Your task to perform on an android device: turn notification dots off Image 0: 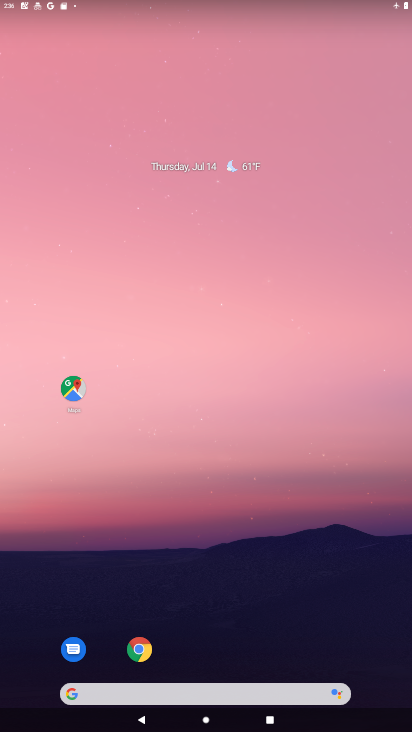
Step 0: drag from (271, 696) to (278, 114)
Your task to perform on an android device: turn notification dots off Image 1: 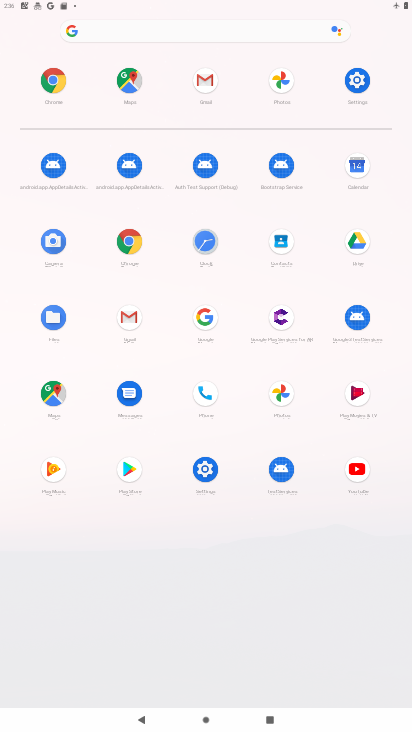
Step 1: click (355, 84)
Your task to perform on an android device: turn notification dots off Image 2: 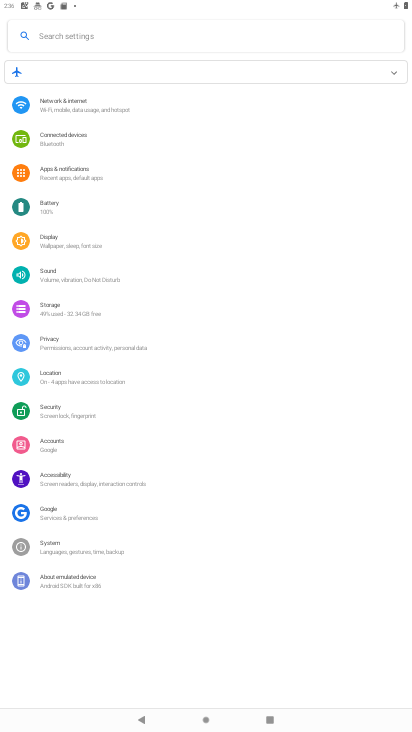
Step 2: click (96, 176)
Your task to perform on an android device: turn notification dots off Image 3: 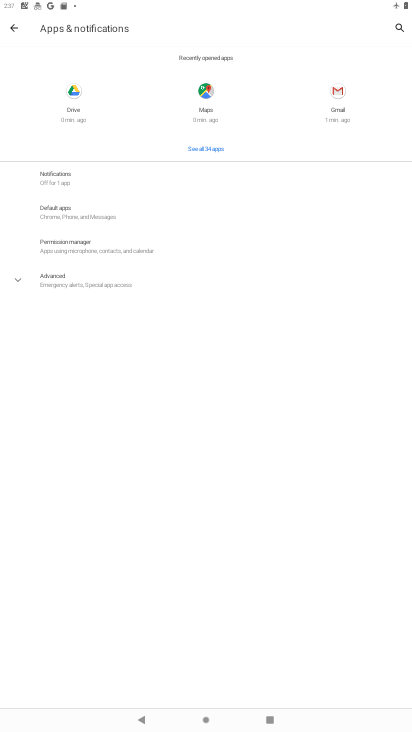
Step 3: press home button
Your task to perform on an android device: turn notification dots off Image 4: 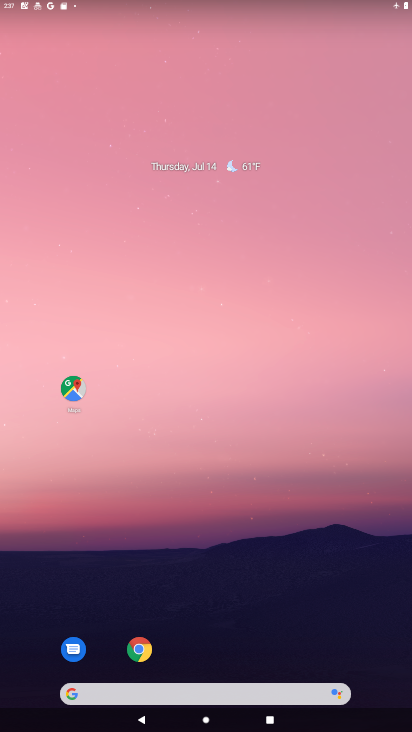
Step 4: drag from (148, 675) to (216, 171)
Your task to perform on an android device: turn notification dots off Image 5: 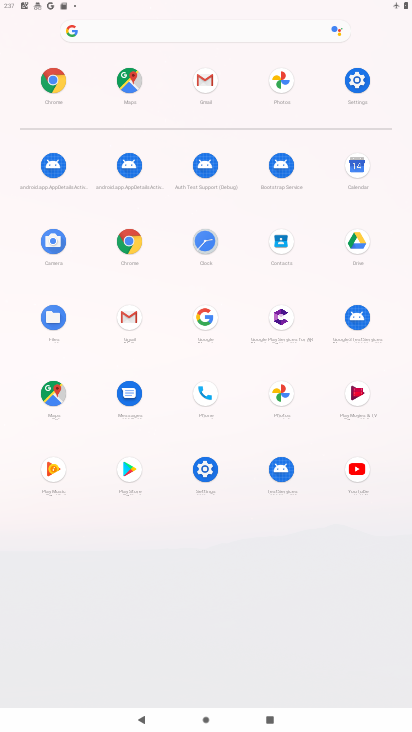
Step 5: click (364, 77)
Your task to perform on an android device: turn notification dots off Image 6: 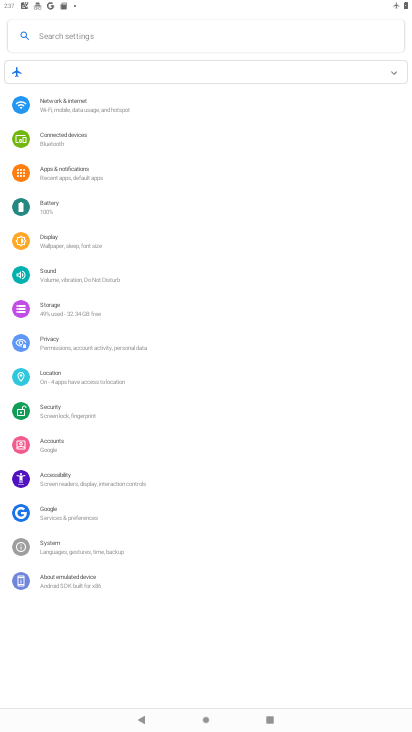
Step 6: click (52, 179)
Your task to perform on an android device: turn notification dots off Image 7: 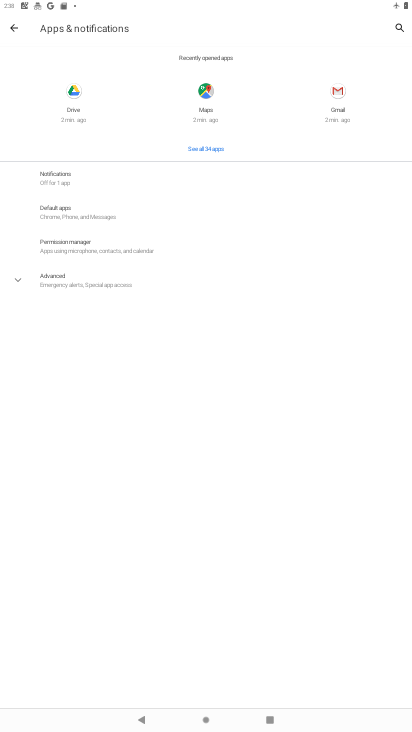
Step 7: click (67, 182)
Your task to perform on an android device: turn notification dots off Image 8: 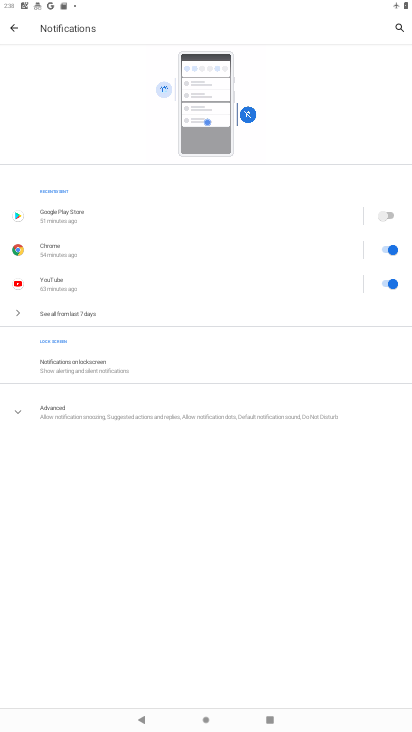
Step 8: click (100, 412)
Your task to perform on an android device: turn notification dots off Image 9: 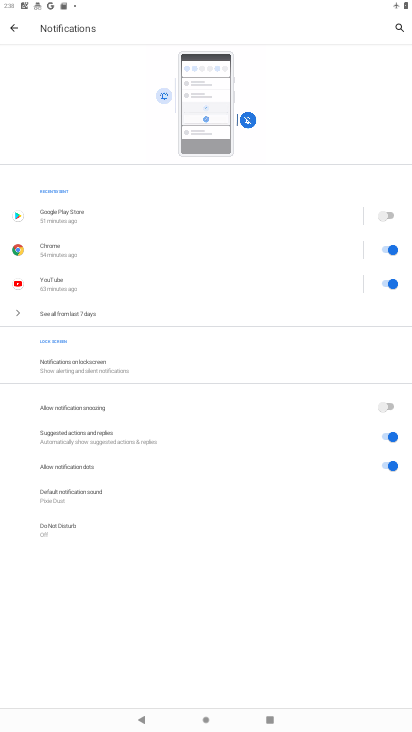
Step 9: click (392, 464)
Your task to perform on an android device: turn notification dots off Image 10: 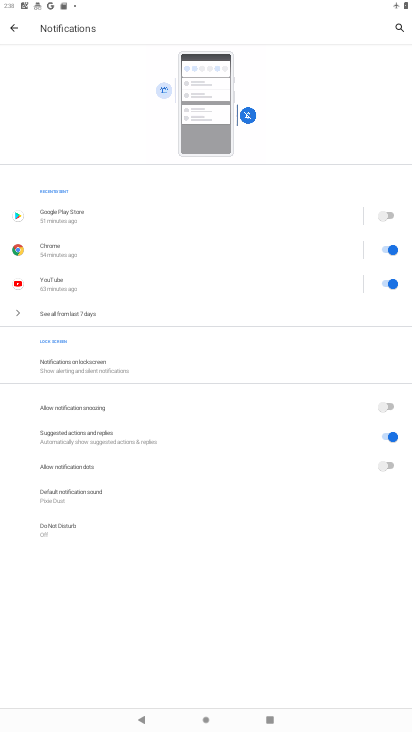
Step 10: task complete